Your task to perform on an android device: check battery use Image 0: 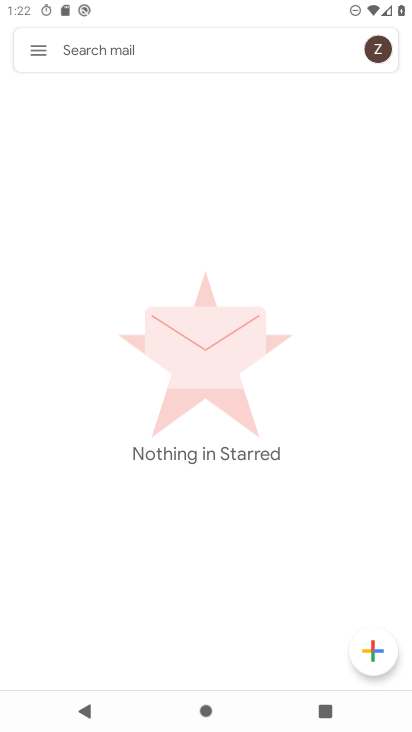
Step 0: press home button
Your task to perform on an android device: check battery use Image 1: 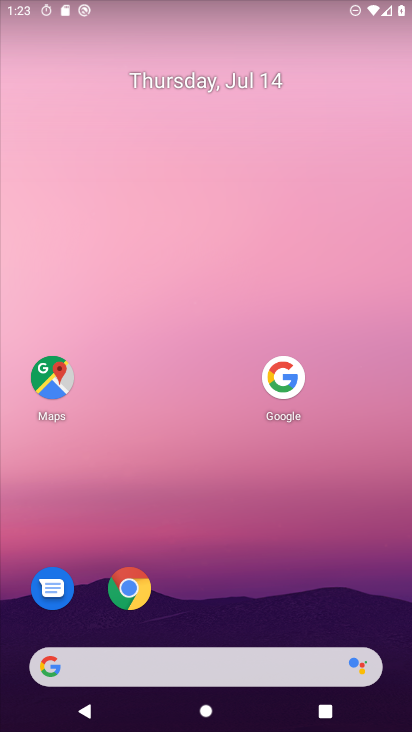
Step 1: drag from (177, 667) to (296, 118)
Your task to perform on an android device: check battery use Image 2: 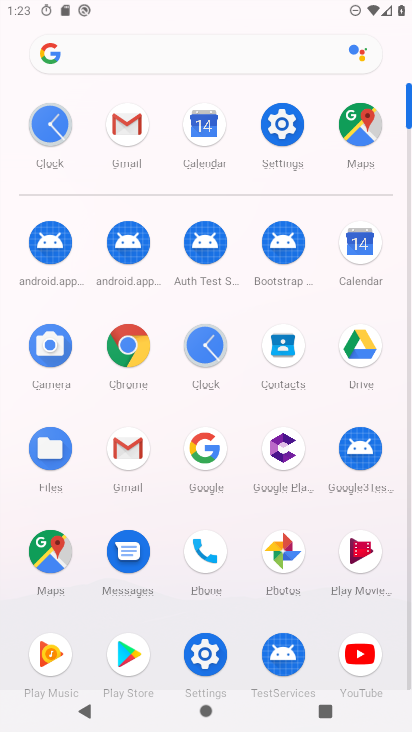
Step 2: click (287, 117)
Your task to perform on an android device: check battery use Image 3: 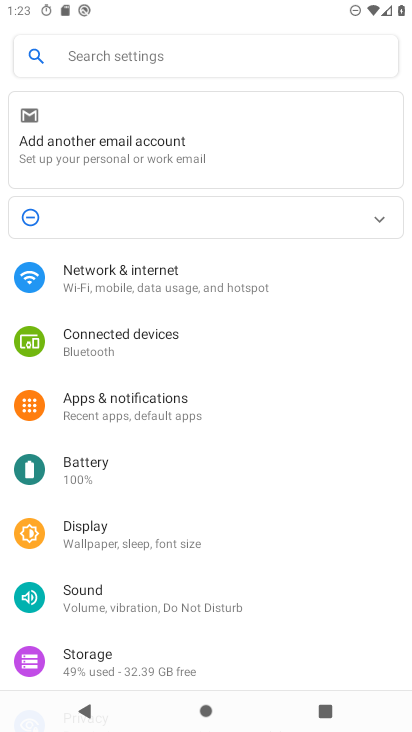
Step 3: click (105, 480)
Your task to perform on an android device: check battery use Image 4: 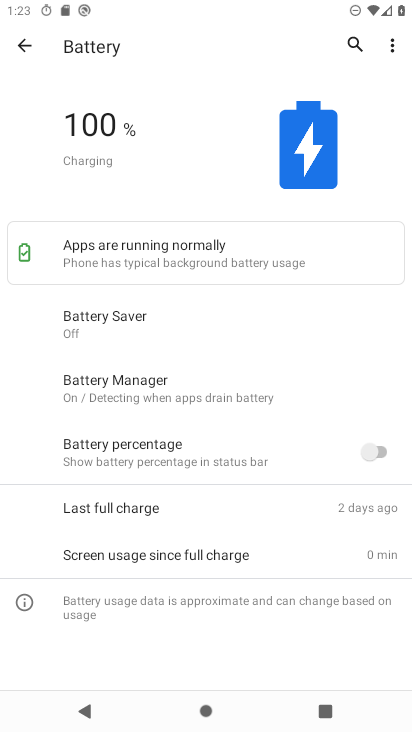
Step 4: click (395, 46)
Your task to perform on an android device: check battery use Image 5: 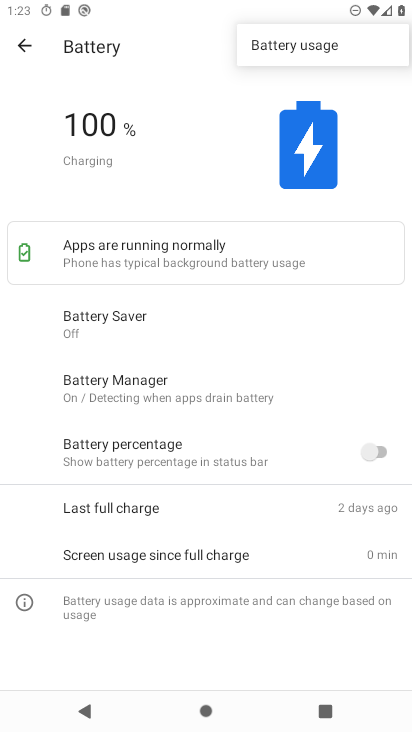
Step 5: click (317, 43)
Your task to perform on an android device: check battery use Image 6: 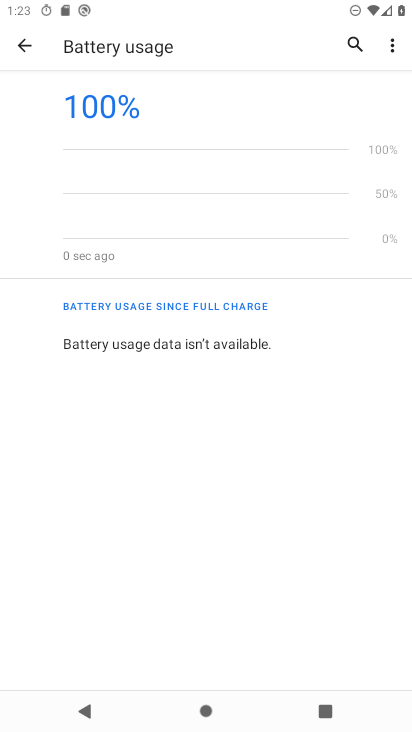
Step 6: task complete